Your task to perform on an android device: see creations saved in the google photos Image 0: 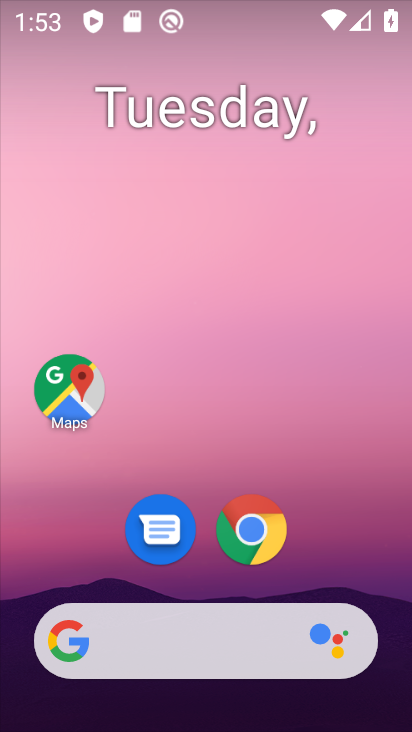
Step 0: drag from (269, 28) to (321, 52)
Your task to perform on an android device: see creations saved in the google photos Image 1: 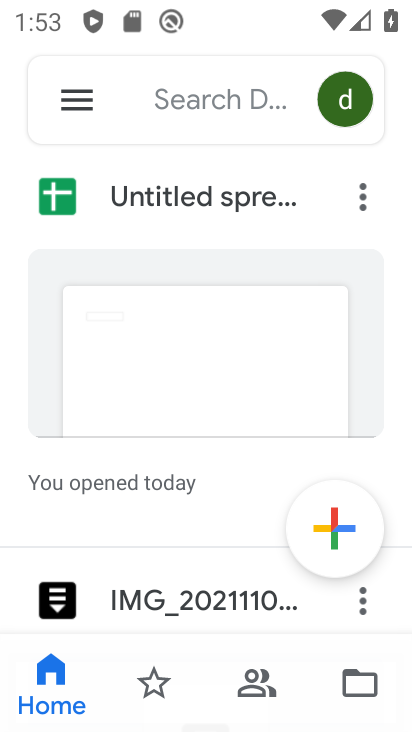
Step 1: press home button
Your task to perform on an android device: see creations saved in the google photos Image 2: 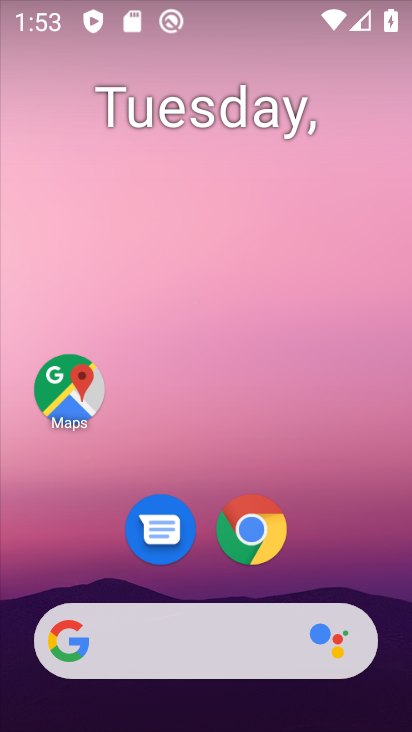
Step 2: drag from (398, 592) to (258, 114)
Your task to perform on an android device: see creations saved in the google photos Image 3: 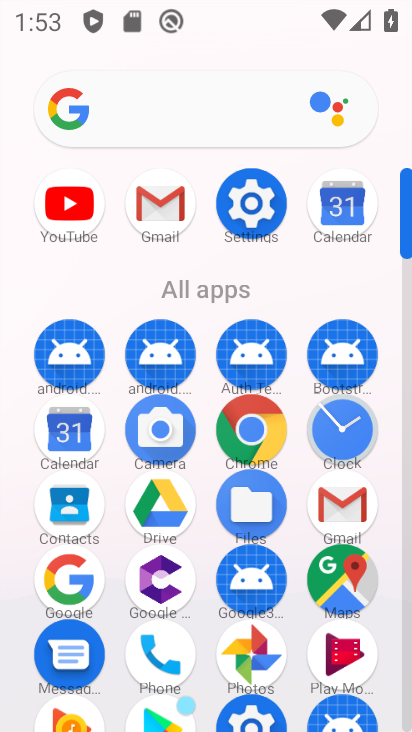
Step 3: click (261, 655)
Your task to perform on an android device: see creations saved in the google photos Image 4: 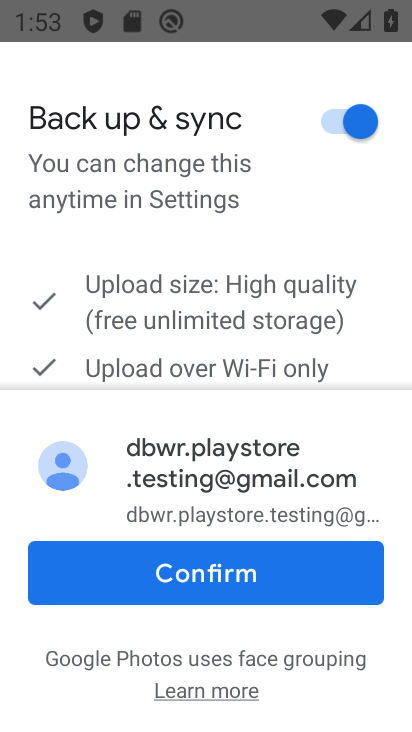
Step 4: click (239, 575)
Your task to perform on an android device: see creations saved in the google photos Image 5: 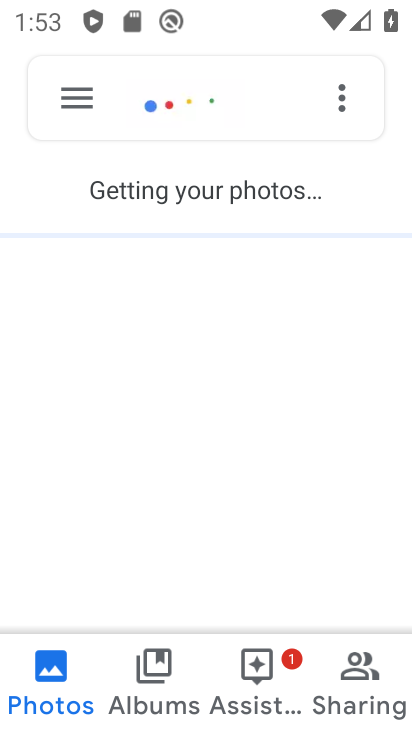
Step 5: click (170, 86)
Your task to perform on an android device: see creations saved in the google photos Image 6: 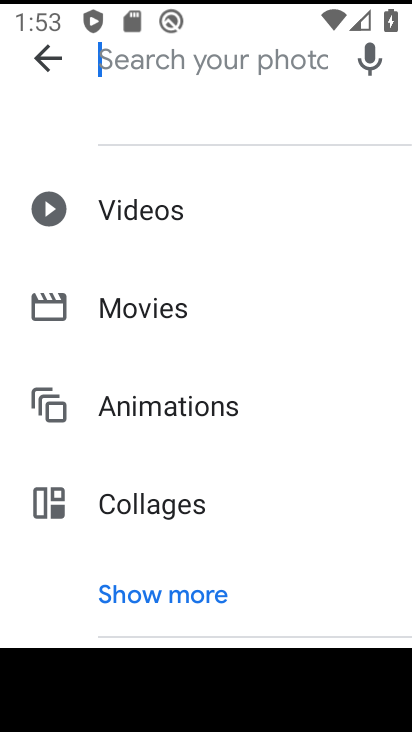
Step 6: click (188, 593)
Your task to perform on an android device: see creations saved in the google photos Image 7: 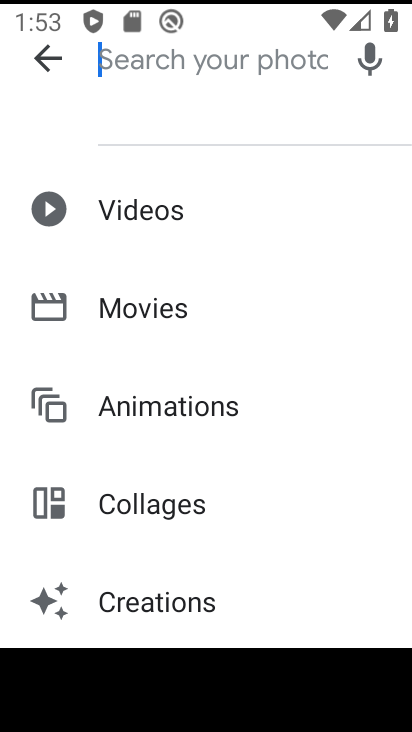
Step 7: click (188, 593)
Your task to perform on an android device: see creations saved in the google photos Image 8: 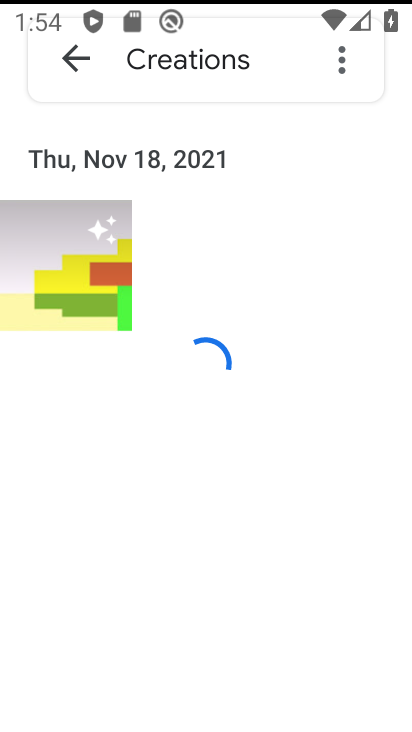
Step 8: task complete